Your task to perform on an android device: Open Chrome and go to settings Image 0: 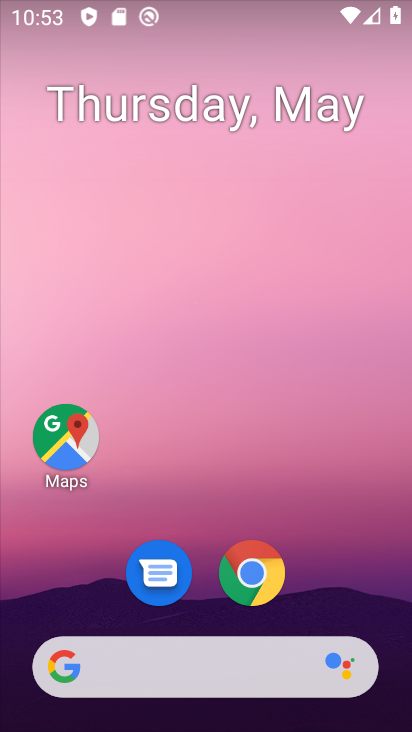
Step 0: click (272, 573)
Your task to perform on an android device: Open Chrome and go to settings Image 1: 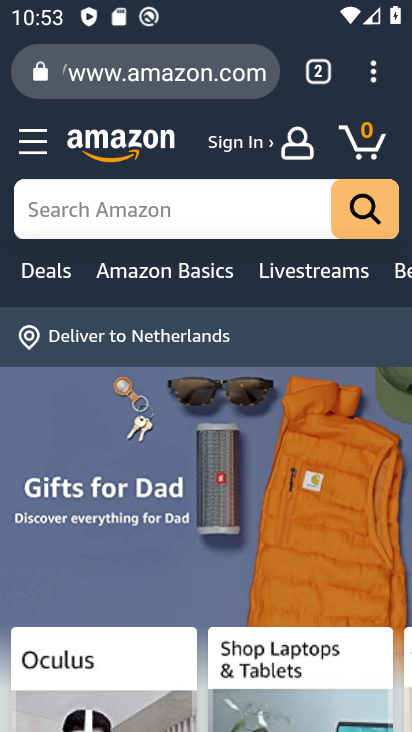
Step 1: task complete